Your task to perform on an android device: refresh tabs in the chrome app Image 0: 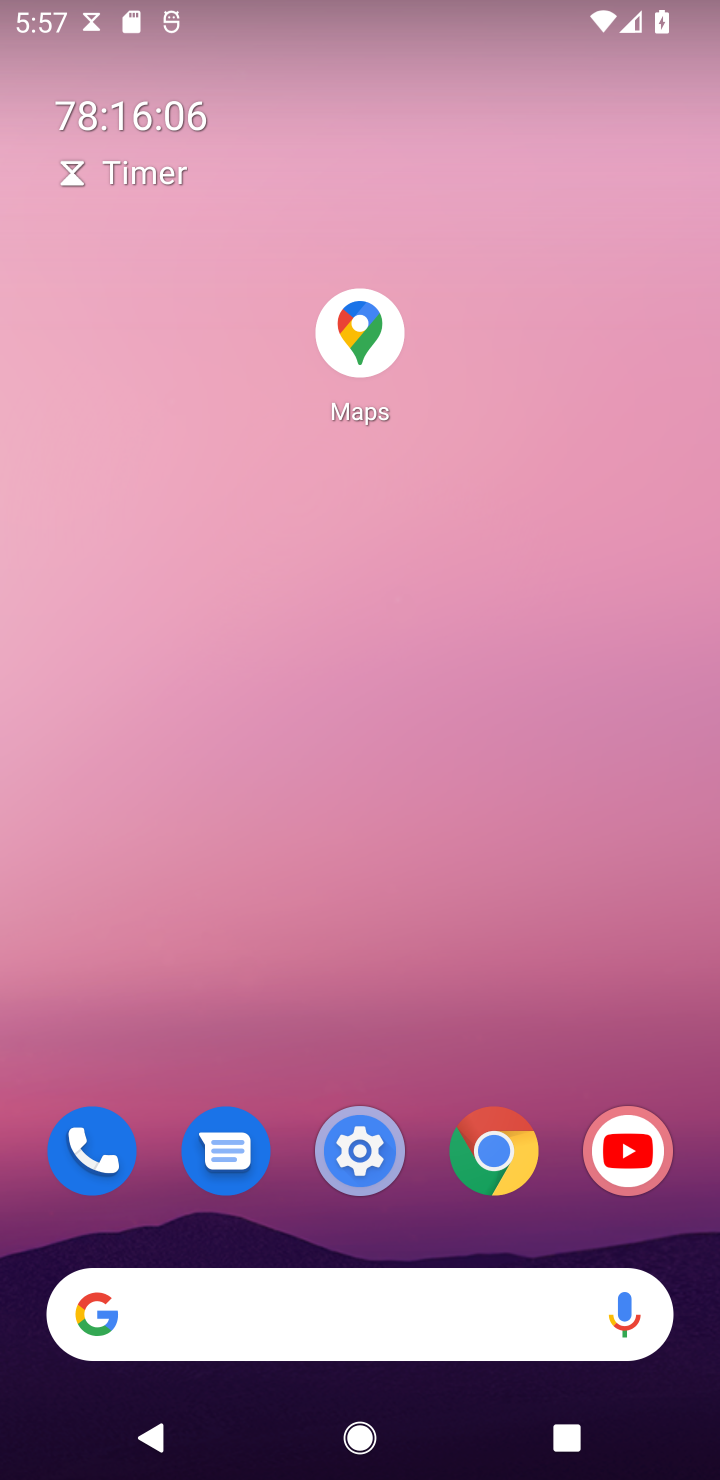
Step 0: drag from (423, 1265) to (431, 19)
Your task to perform on an android device: refresh tabs in the chrome app Image 1: 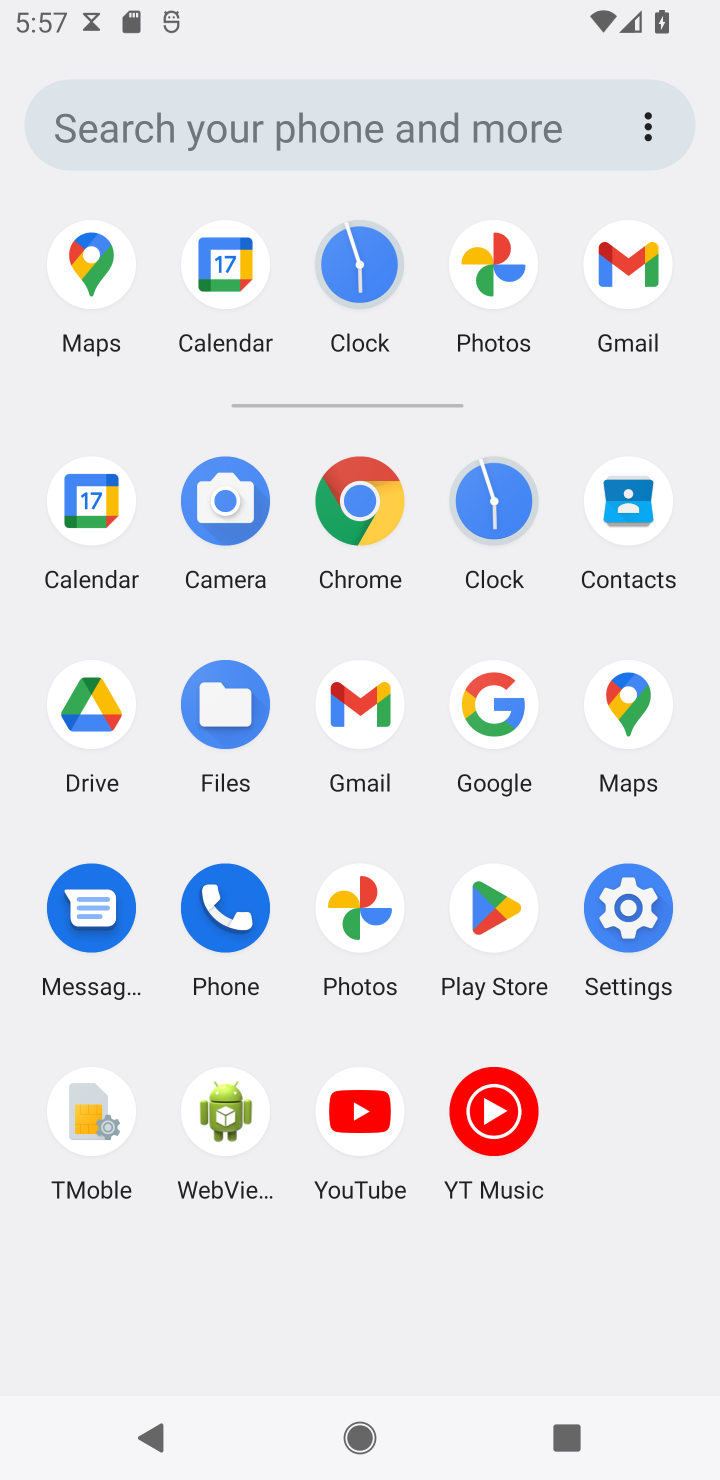
Step 1: click (354, 509)
Your task to perform on an android device: refresh tabs in the chrome app Image 2: 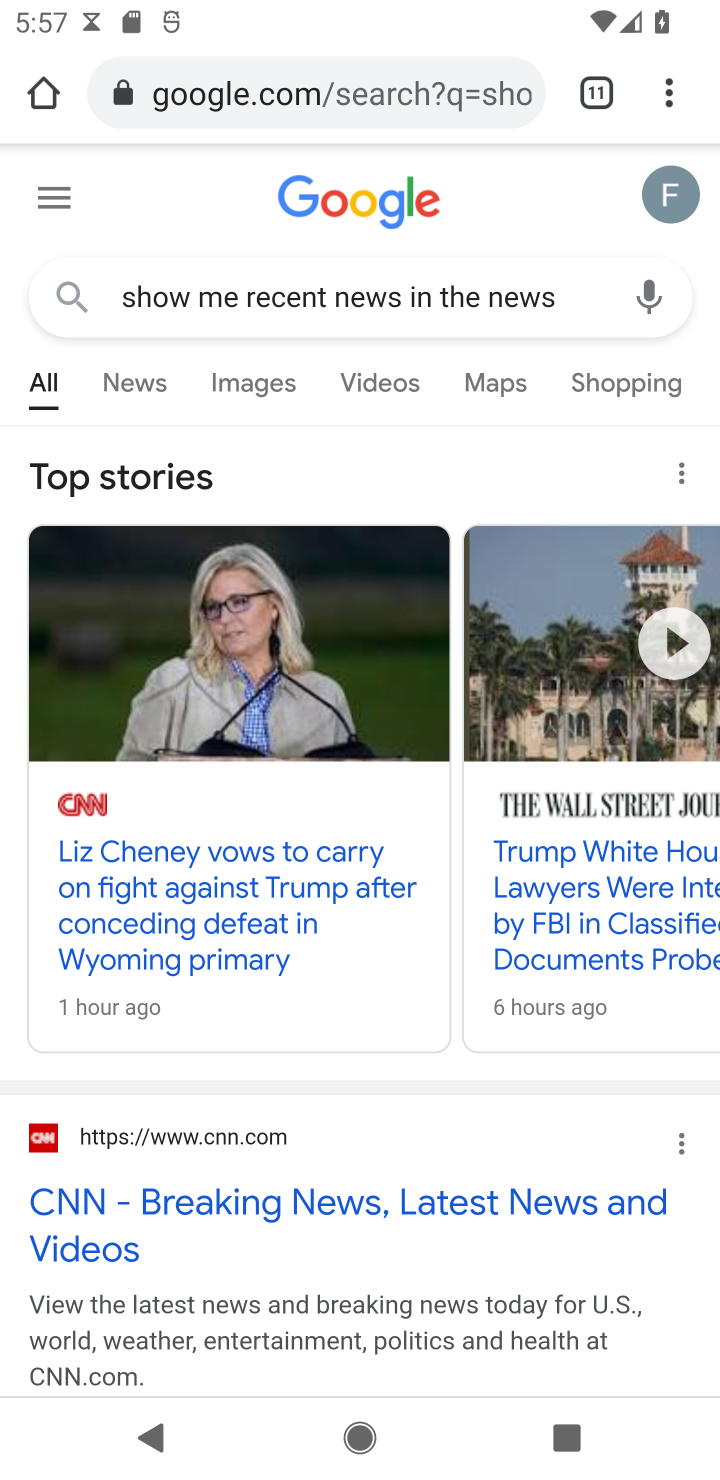
Step 2: click (664, 77)
Your task to perform on an android device: refresh tabs in the chrome app Image 3: 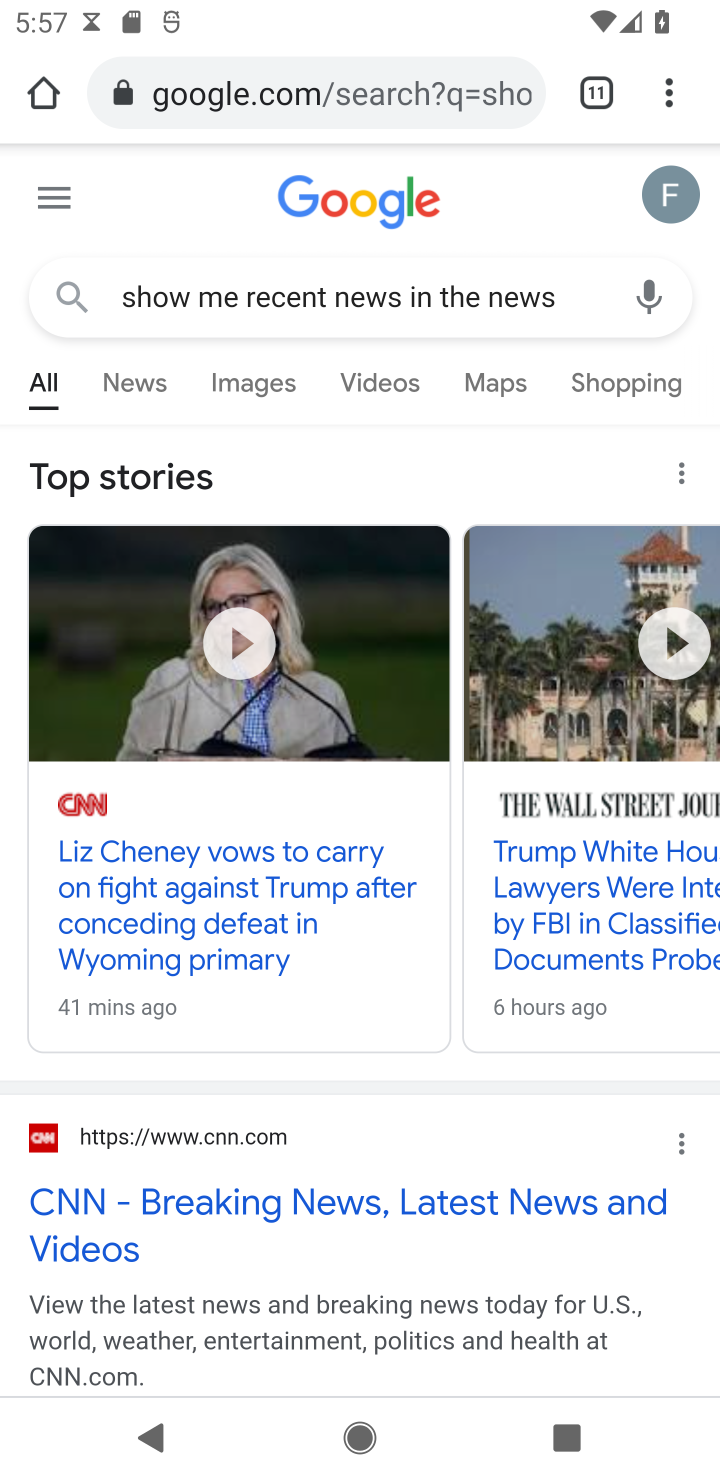
Step 3: click (664, 77)
Your task to perform on an android device: refresh tabs in the chrome app Image 4: 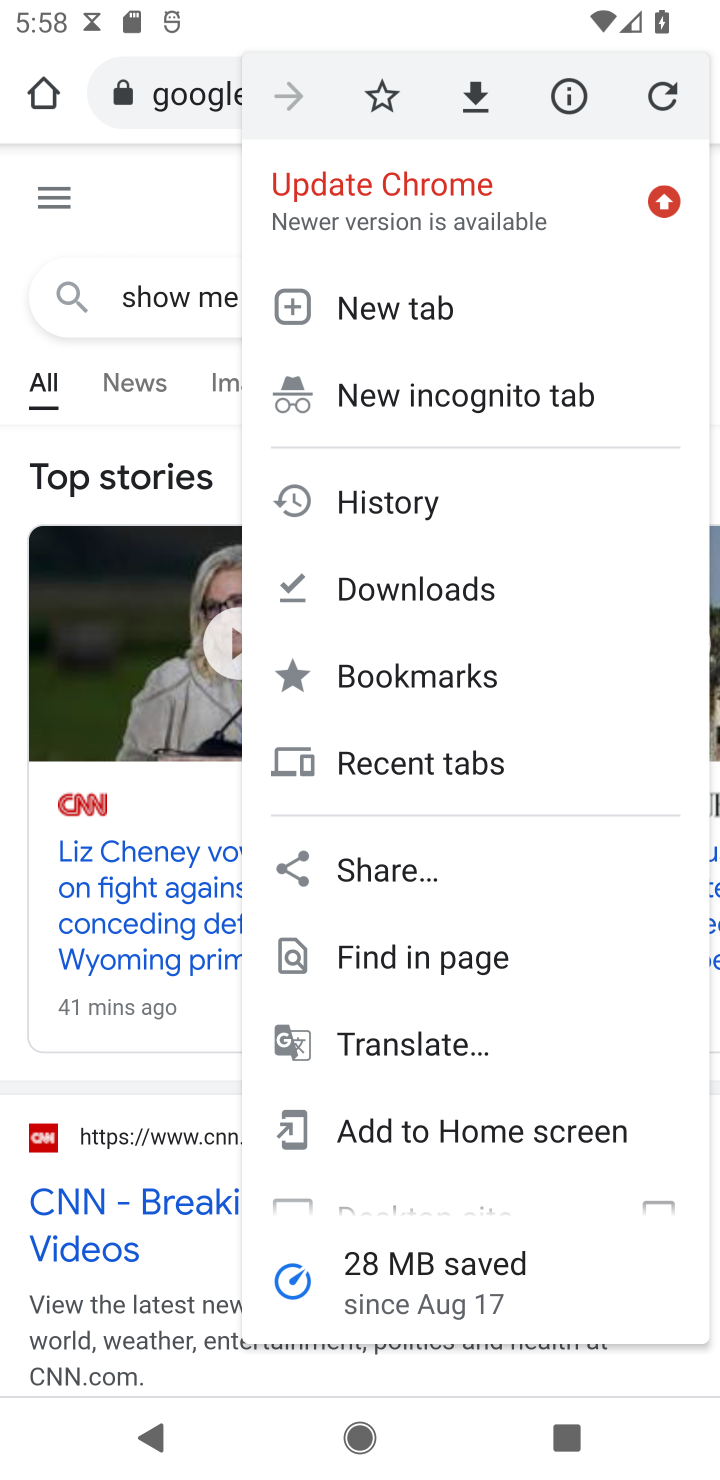
Step 4: click (661, 95)
Your task to perform on an android device: refresh tabs in the chrome app Image 5: 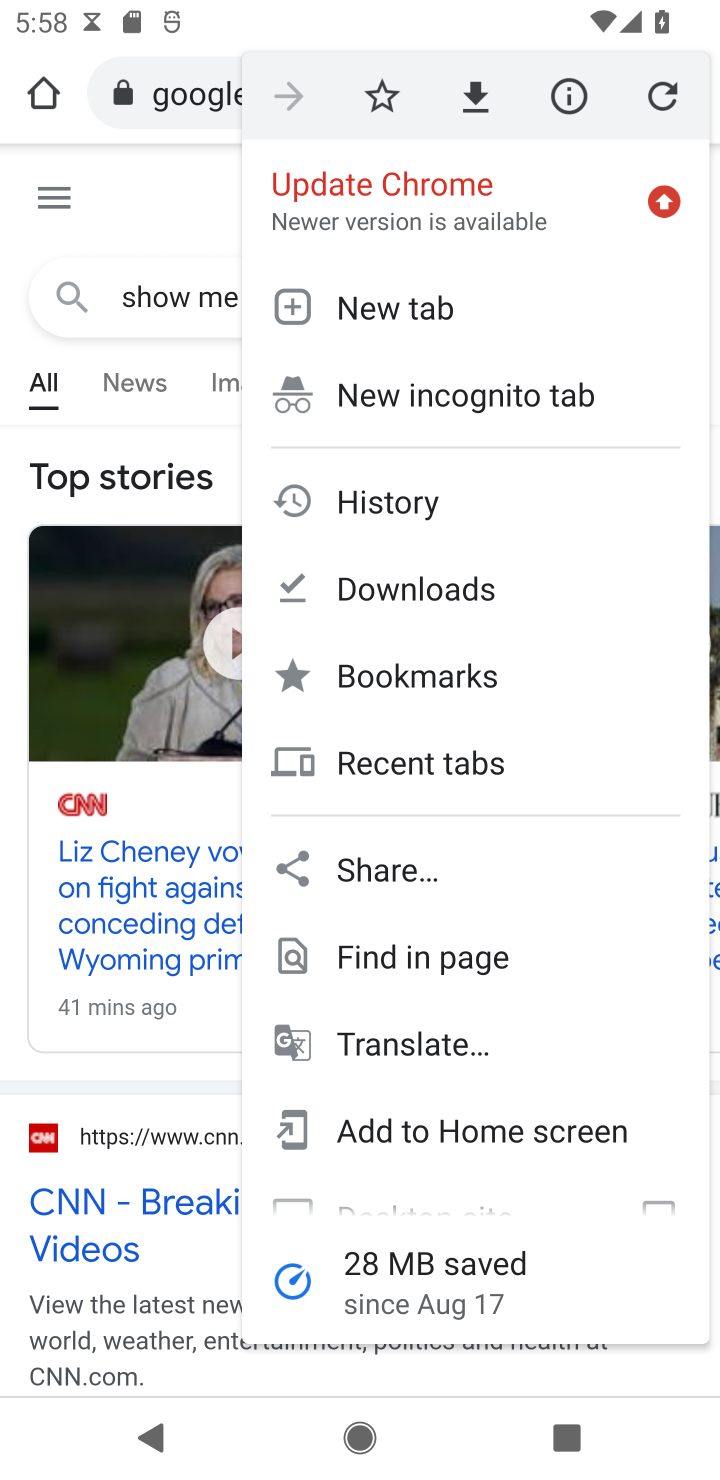
Step 5: task complete